Your task to perform on an android device: Open location settings Image 0: 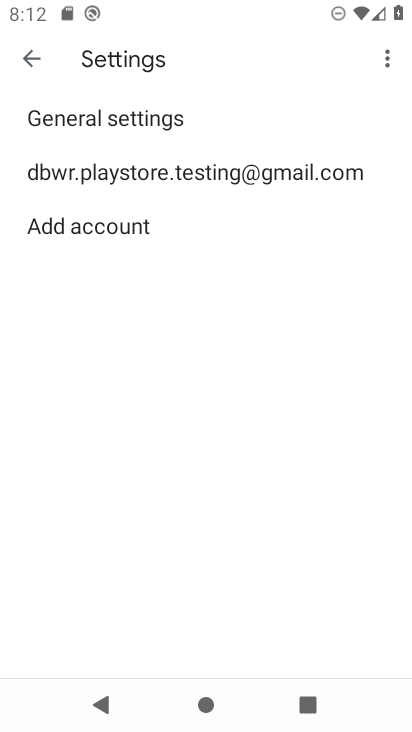
Step 0: press home button
Your task to perform on an android device: Open location settings Image 1: 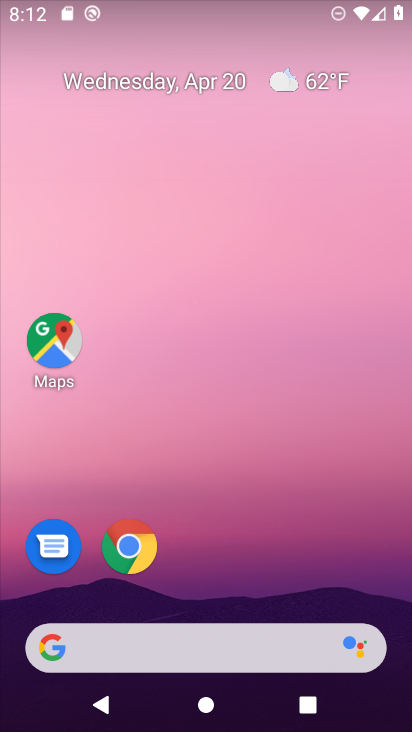
Step 1: drag from (281, 548) to (286, 113)
Your task to perform on an android device: Open location settings Image 2: 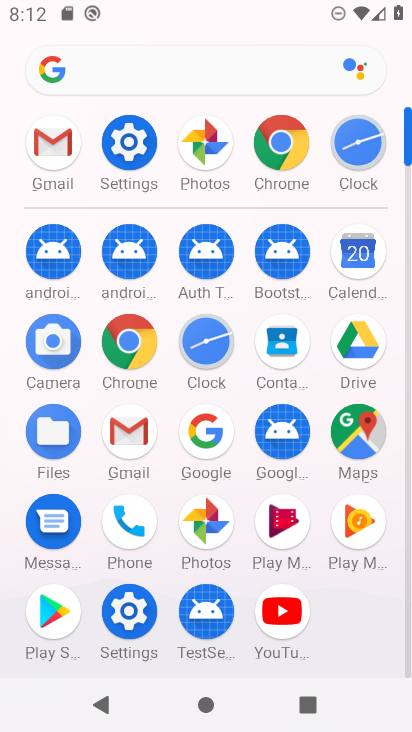
Step 2: click (135, 138)
Your task to perform on an android device: Open location settings Image 3: 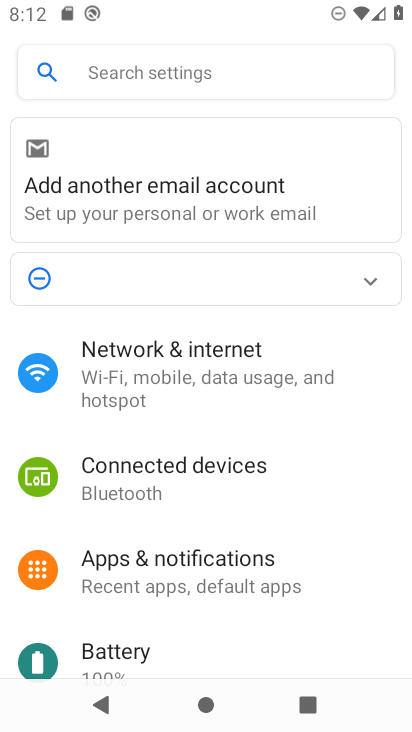
Step 3: drag from (218, 618) to (272, 80)
Your task to perform on an android device: Open location settings Image 4: 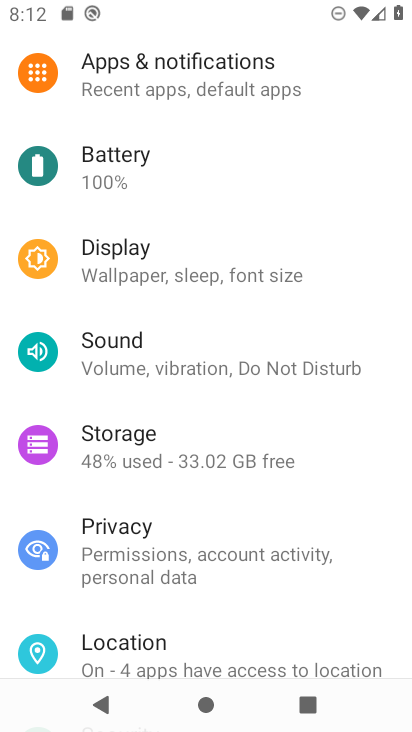
Step 4: click (237, 656)
Your task to perform on an android device: Open location settings Image 5: 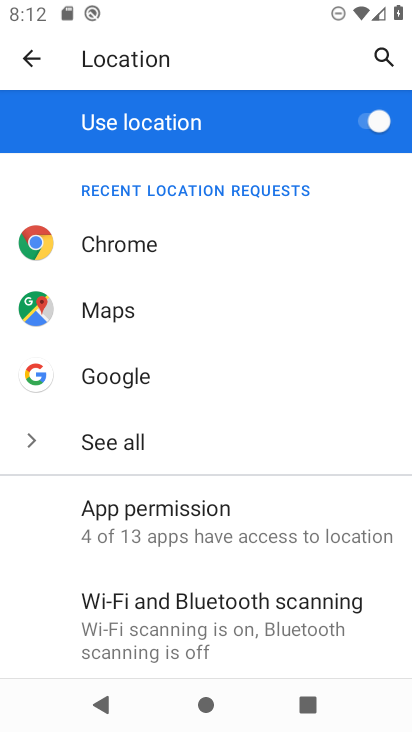
Step 5: task complete